Your task to perform on an android device: create a new album in the google photos Image 0: 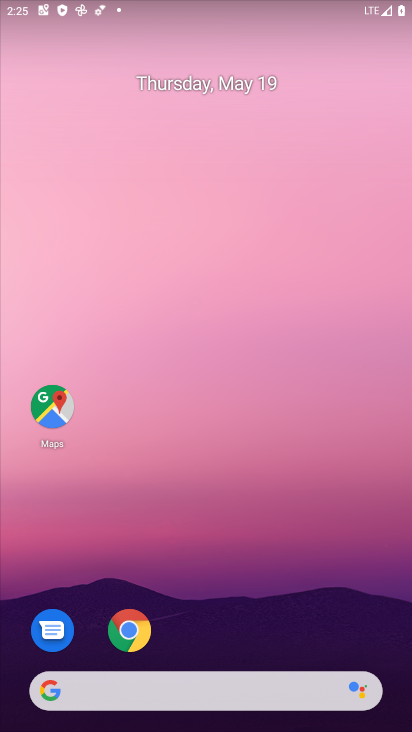
Step 0: drag from (394, 637) to (313, 33)
Your task to perform on an android device: create a new album in the google photos Image 1: 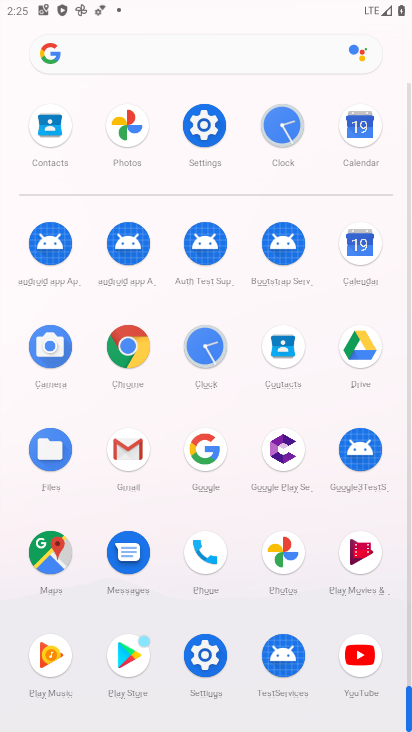
Step 1: click (279, 547)
Your task to perform on an android device: create a new album in the google photos Image 2: 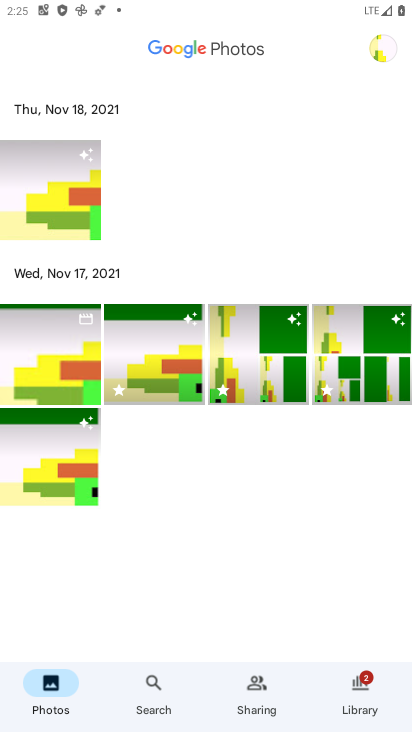
Step 2: click (359, 702)
Your task to perform on an android device: create a new album in the google photos Image 3: 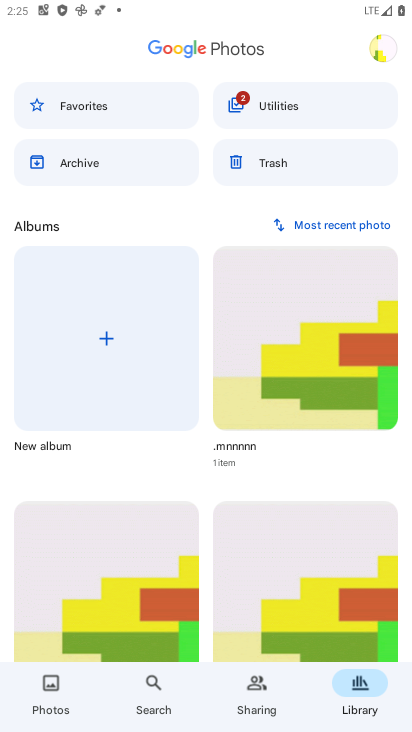
Step 3: click (105, 335)
Your task to perform on an android device: create a new album in the google photos Image 4: 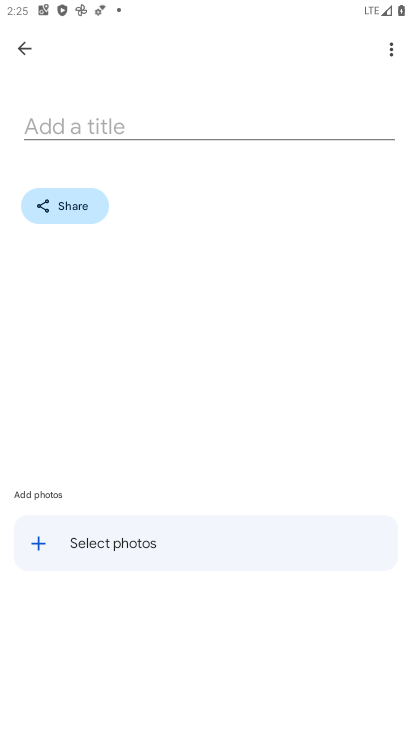
Step 4: click (80, 122)
Your task to perform on an android device: create a new album in the google photos Image 5: 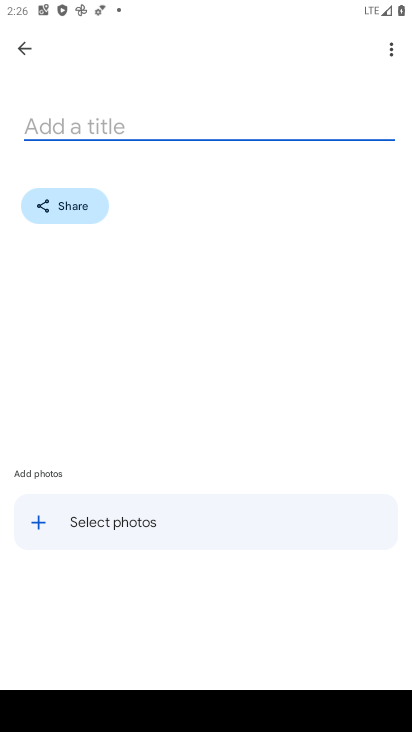
Step 5: type "ouptryeghj"
Your task to perform on an android device: create a new album in the google photos Image 6: 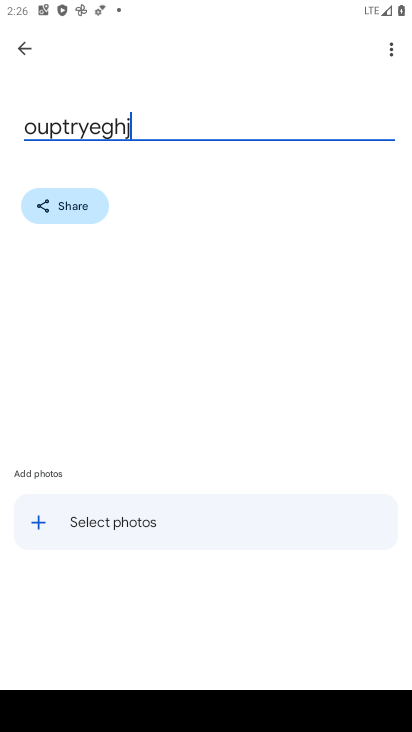
Step 6: click (39, 523)
Your task to perform on an android device: create a new album in the google photos Image 7: 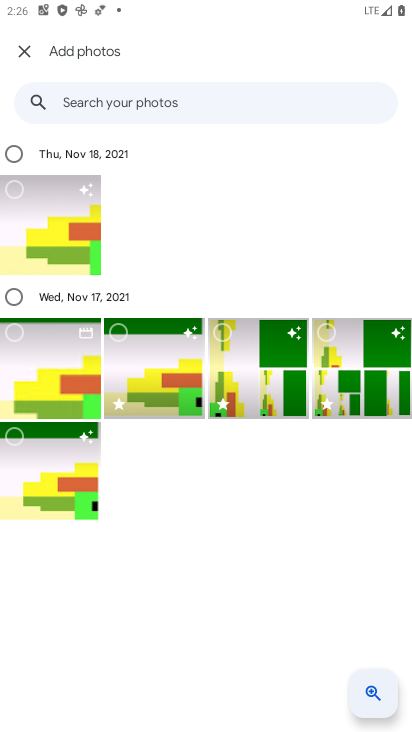
Step 7: click (15, 329)
Your task to perform on an android device: create a new album in the google photos Image 8: 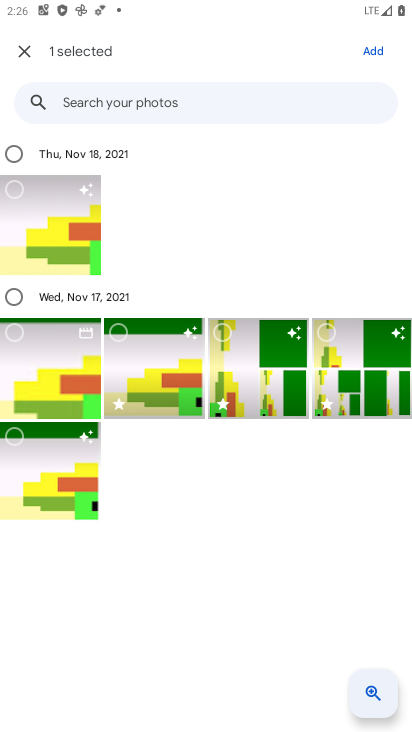
Step 8: click (124, 332)
Your task to perform on an android device: create a new album in the google photos Image 9: 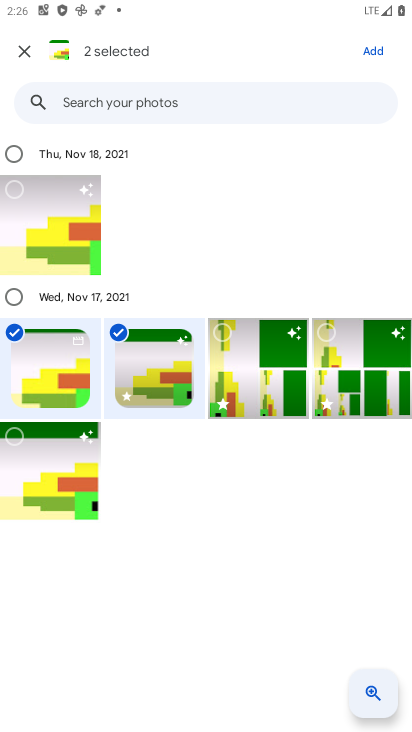
Step 9: click (370, 46)
Your task to perform on an android device: create a new album in the google photos Image 10: 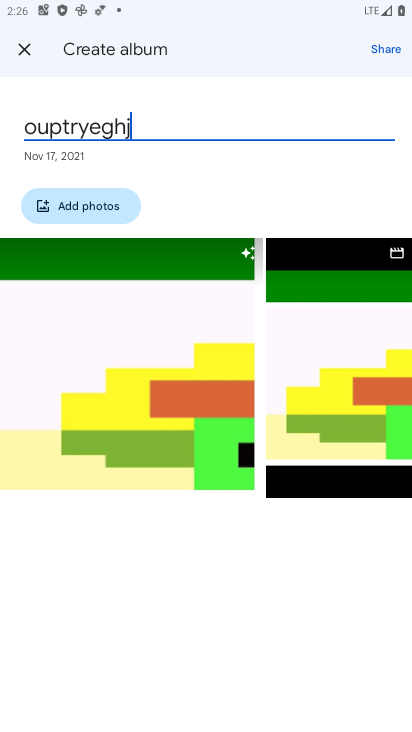
Step 10: task complete